Your task to perform on an android device: Empty the shopping cart on amazon.com. Image 0: 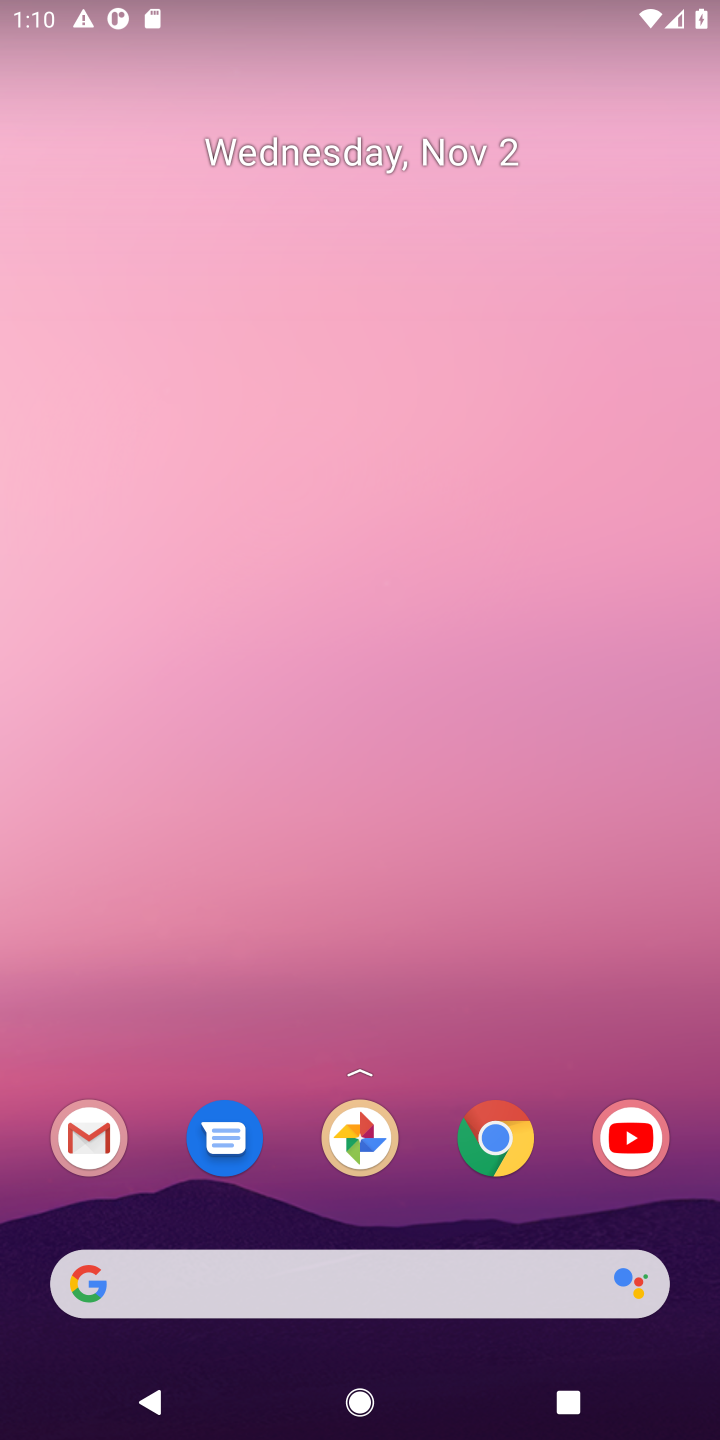
Step 0: click (504, 1140)
Your task to perform on an android device: Empty the shopping cart on amazon.com. Image 1: 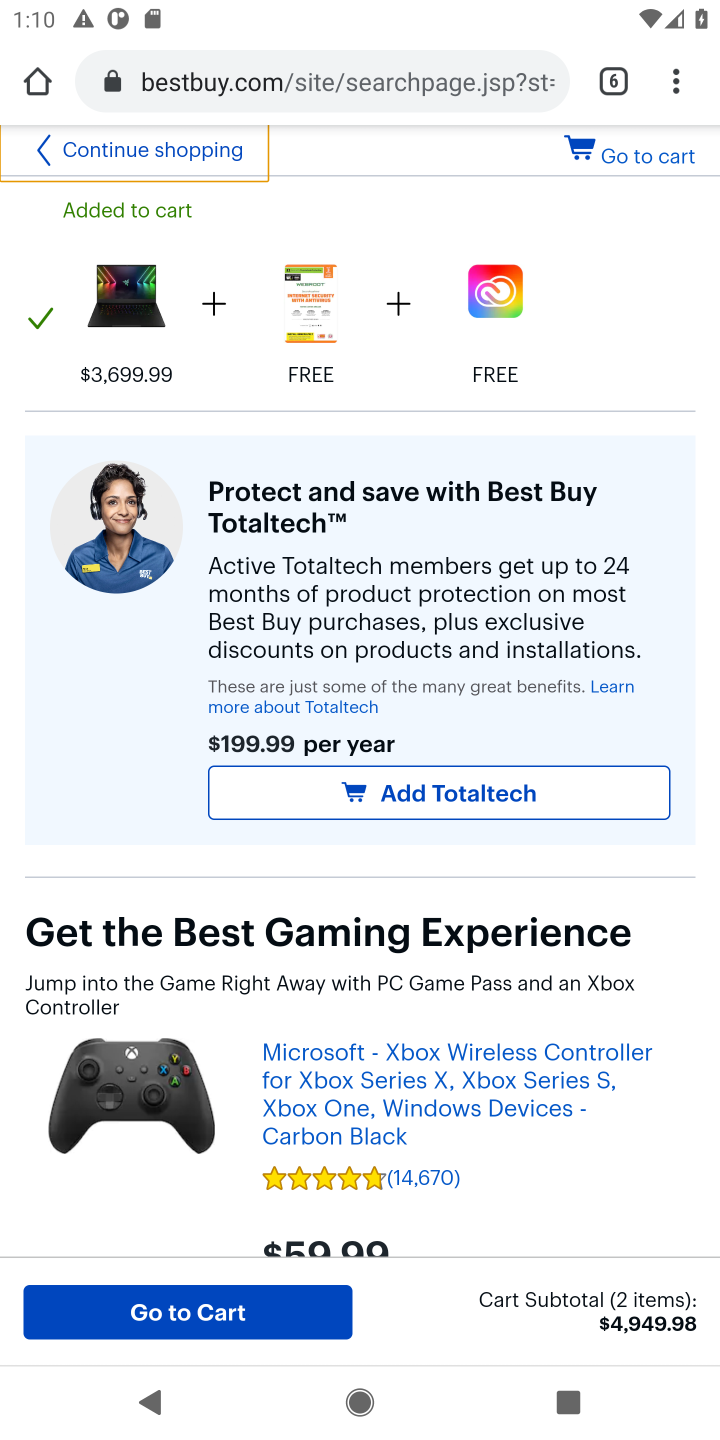
Step 1: click (612, 86)
Your task to perform on an android device: Empty the shopping cart on amazon.com. Image 2: 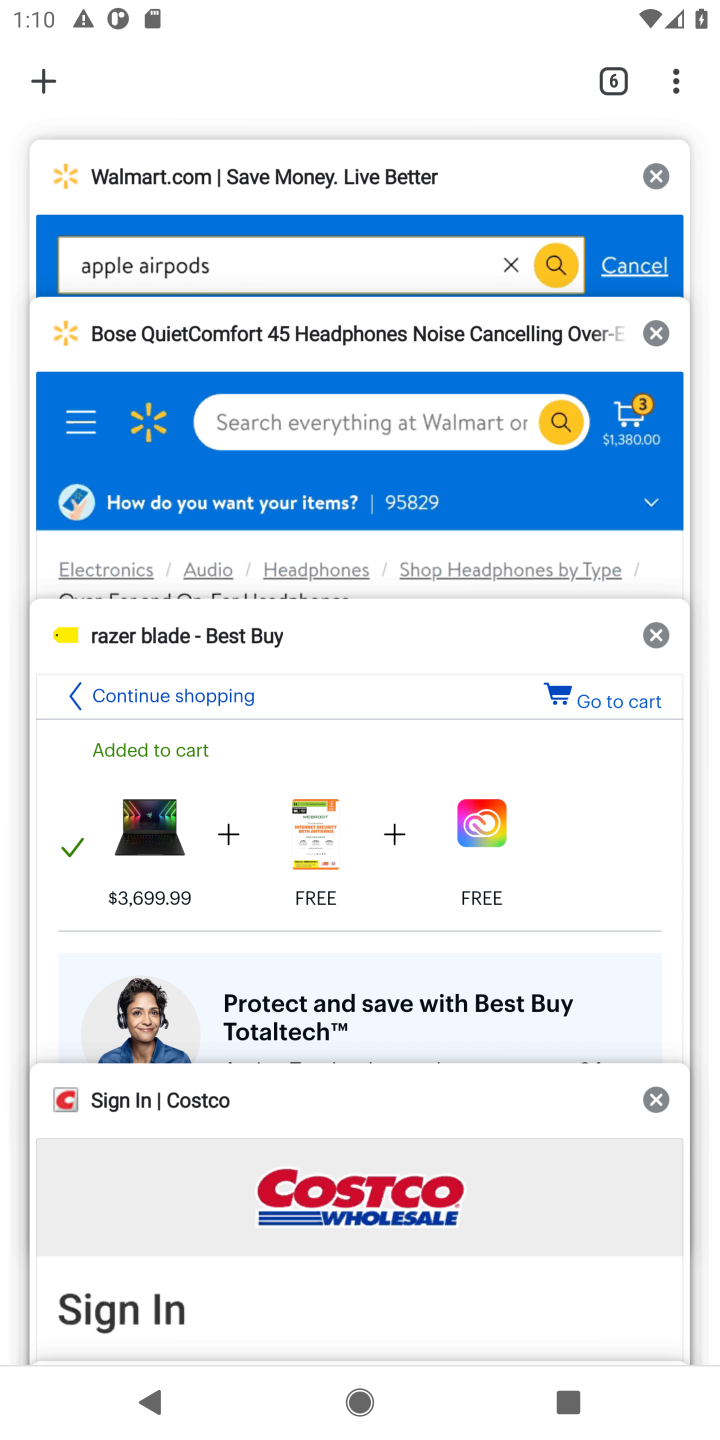
Step 2: drag from (381, 1270) to (439, 451)
Your task to perform on an android device: Empty the shopping cart on amazon.com. Image 3: 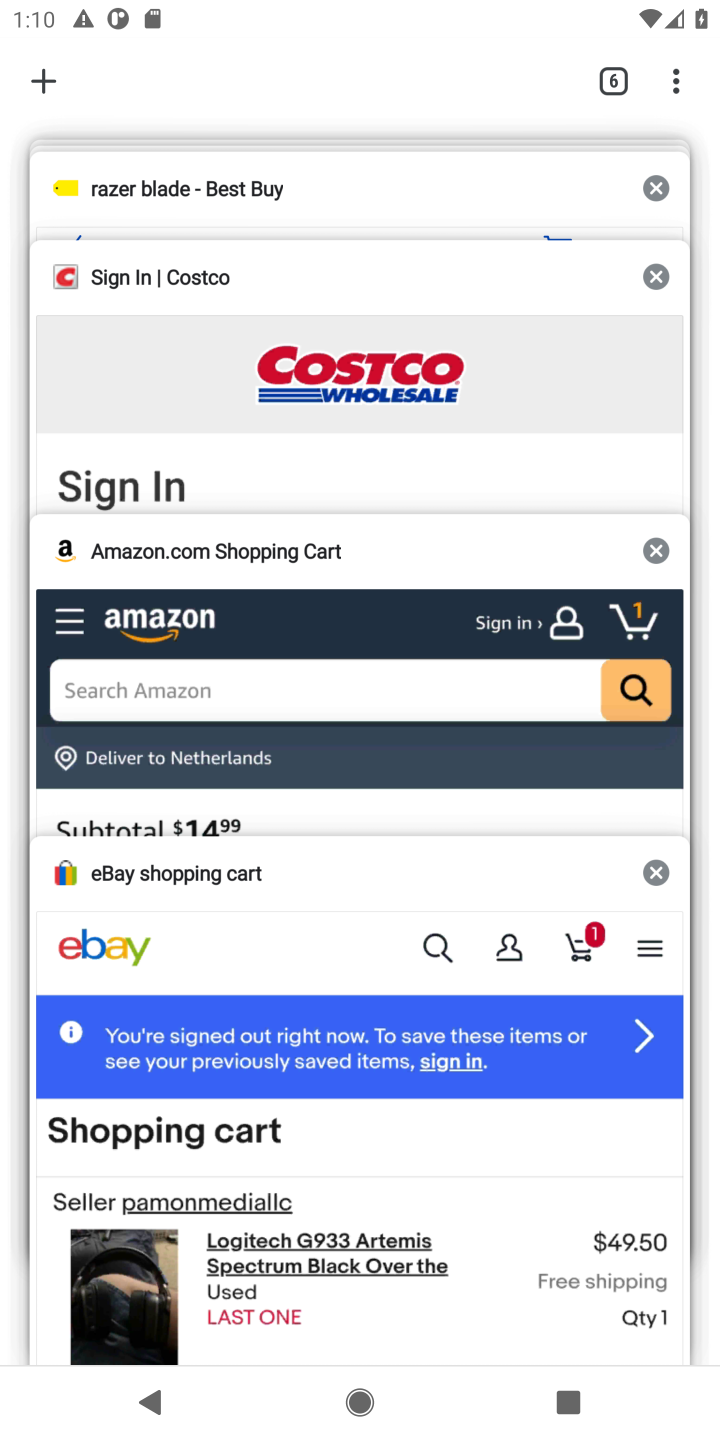
Step 3: click (322, 700)
Your task to perform on an android device: Empty the shopping cart on amazon.com. Image 4: 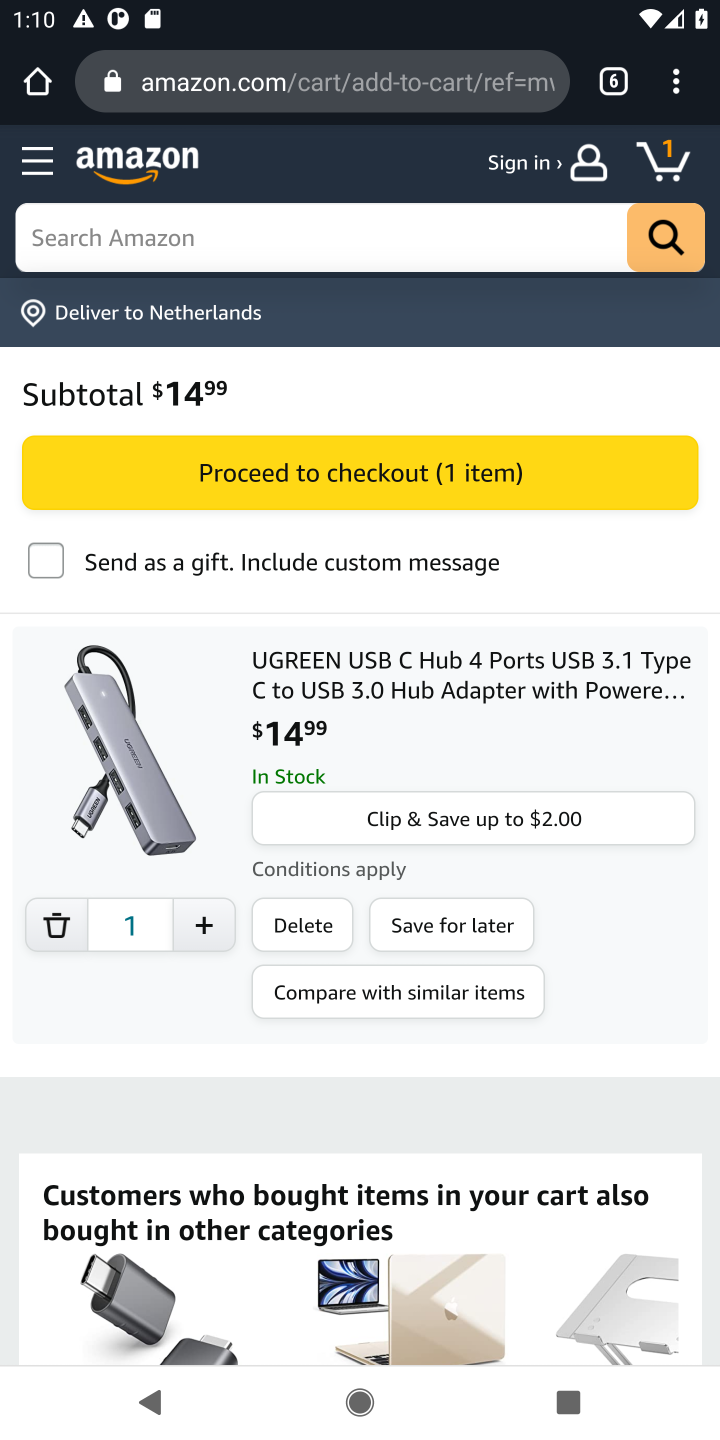
Step 4: click (309, 926)
Your task to perform on an android device: Empty the shopping cart on amazon.com. Image 5: 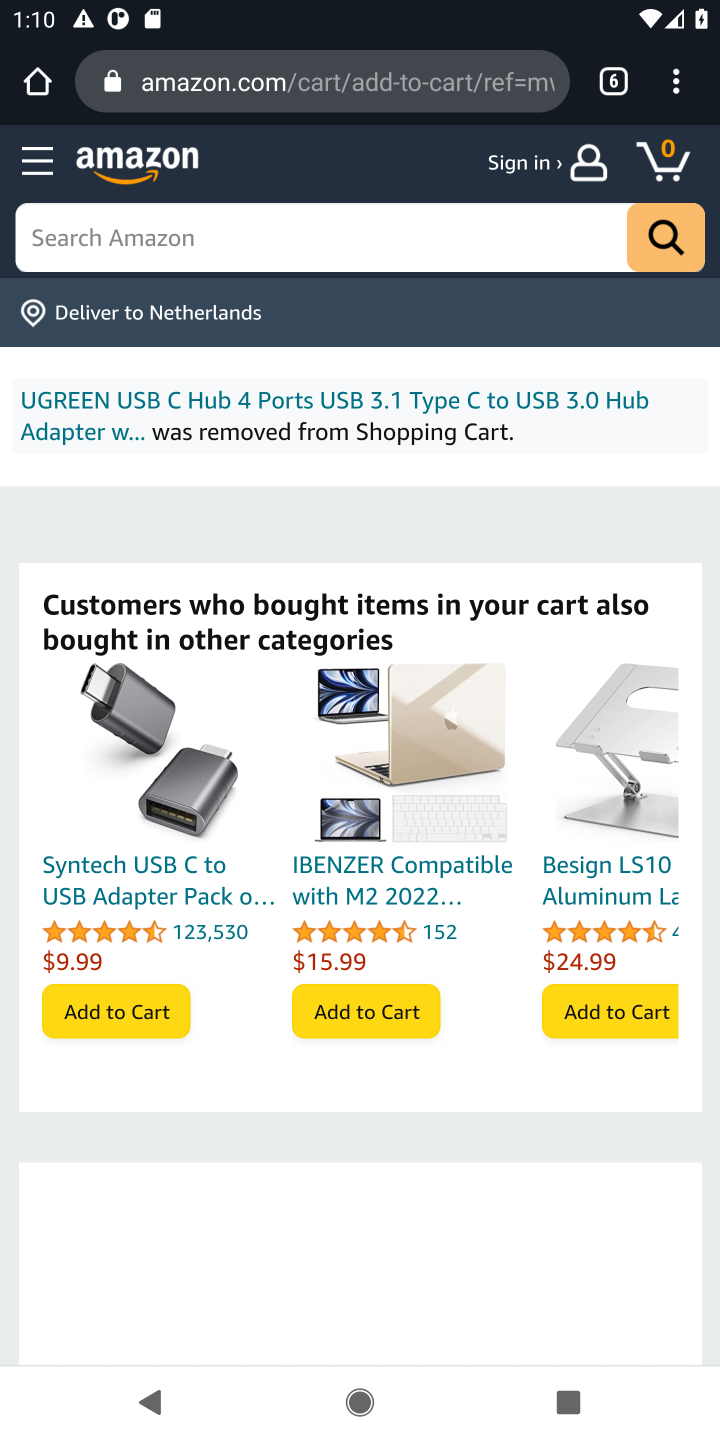
Step 5: task complete